Your task to perform on an android device: clear all cookies in the chrome app Image 0: 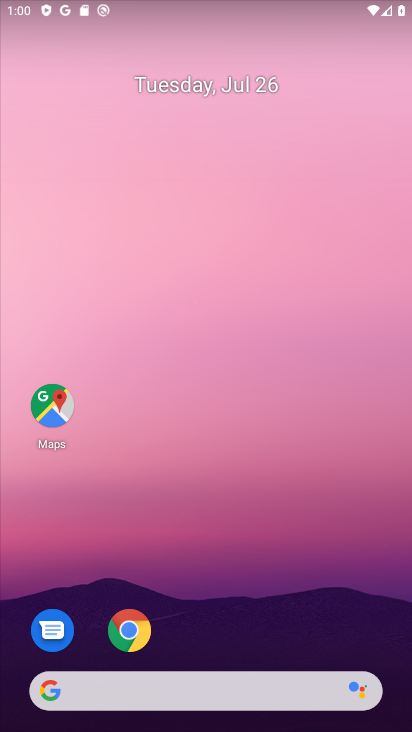
Step 0: drag from (223, 599) to (160, 2)
Your task to perform on an android device: clear all cookies in the chrome app Image 1: 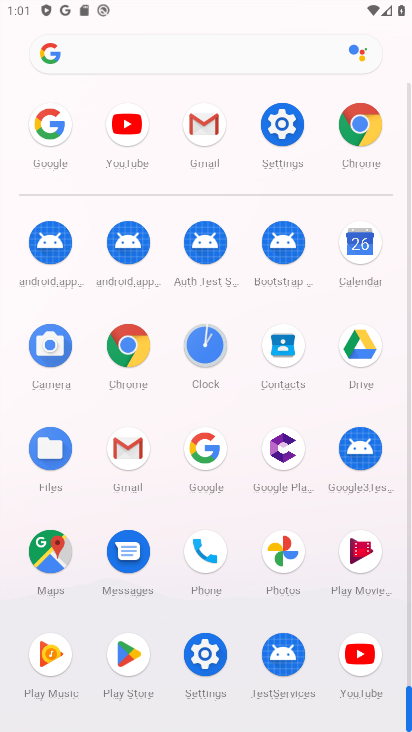
Step 1: click (367, 125)
Your task to perform on an android device: clear all cookies in the chrome app Image 2: 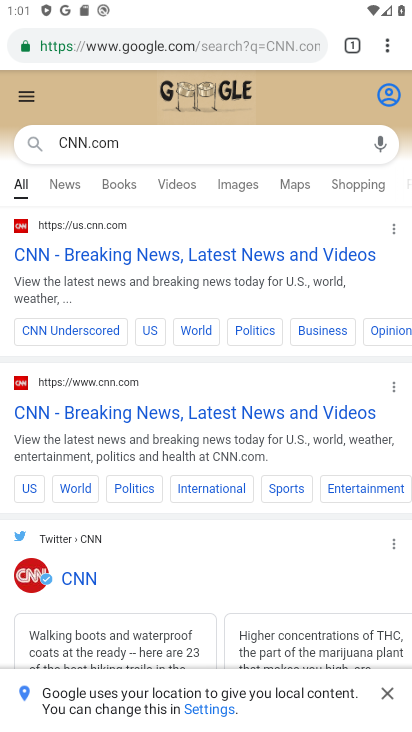
Step 2: drag from (390, 43) to (240, 235)
Your task to perform on an android device: clear all cookies in the chrome app Image 3: 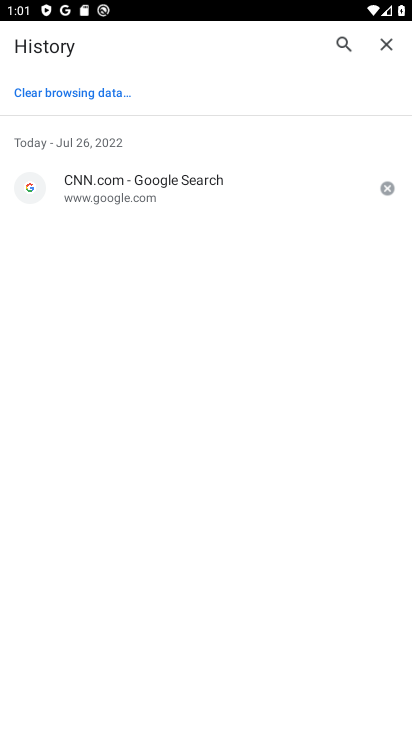
Step 3: click (74, 93)
Your task to perform on an android device: clear all cookies in the chrome app Image 4: 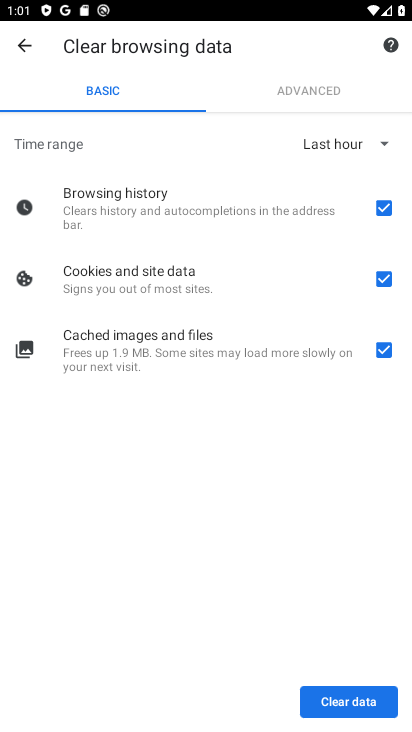
Step 4: click (389, 353)
Your task to perform on an android device: clear all cookies in the chrome app Image 5: 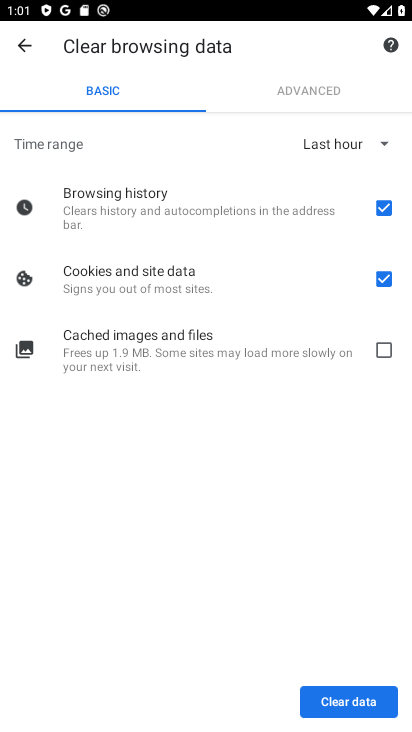
Step 5: click (376, 204)
Your task to perform on an android device: clear all cookies in the chrome app Image 6: 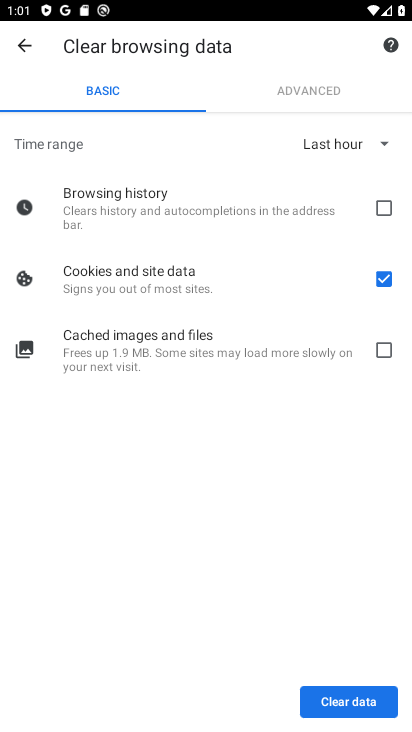
Step 6: click (367, 707)
Your task to perform on an android device: clear all cookies in the chrome app Image 7: 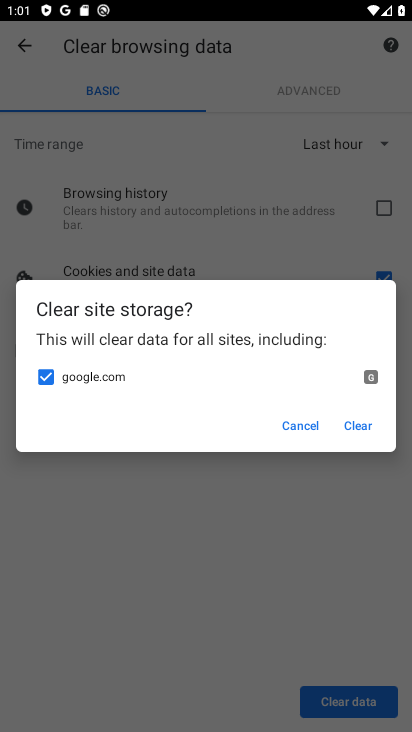
Step 7: click (358, 433)
Your task to perform on an android device: clear all cookies in the chrome app Image 8: 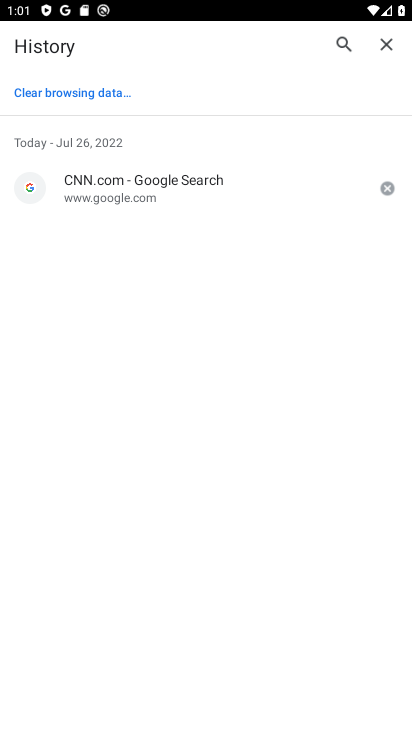
Step 8: task complete